Your task to perform on an android device: install app "AliExpress" Image 0: 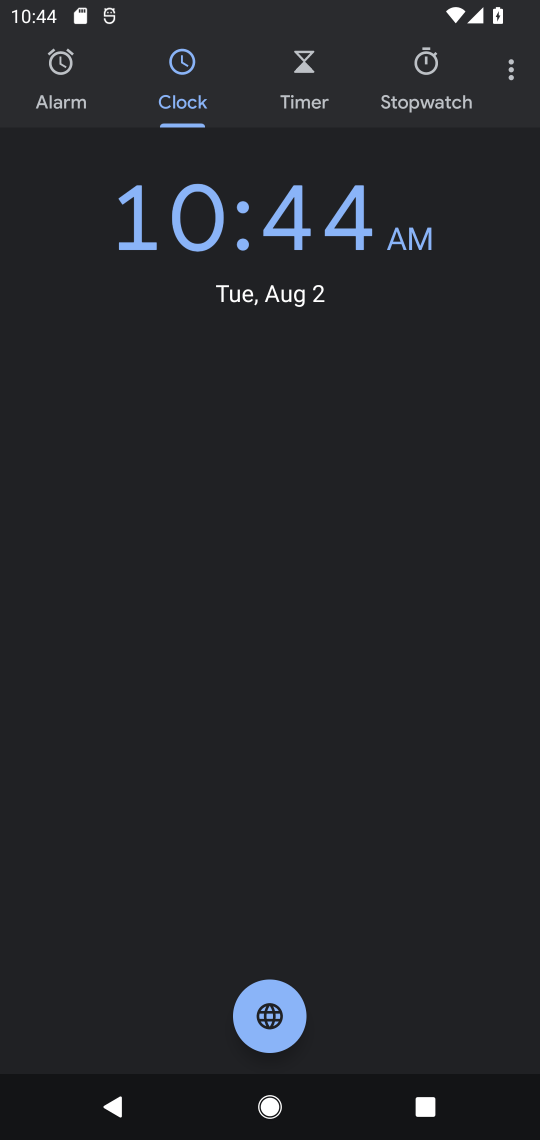
Step 0: press home button
Your task to perform on an android device: install app "AliExpress" Image 1: 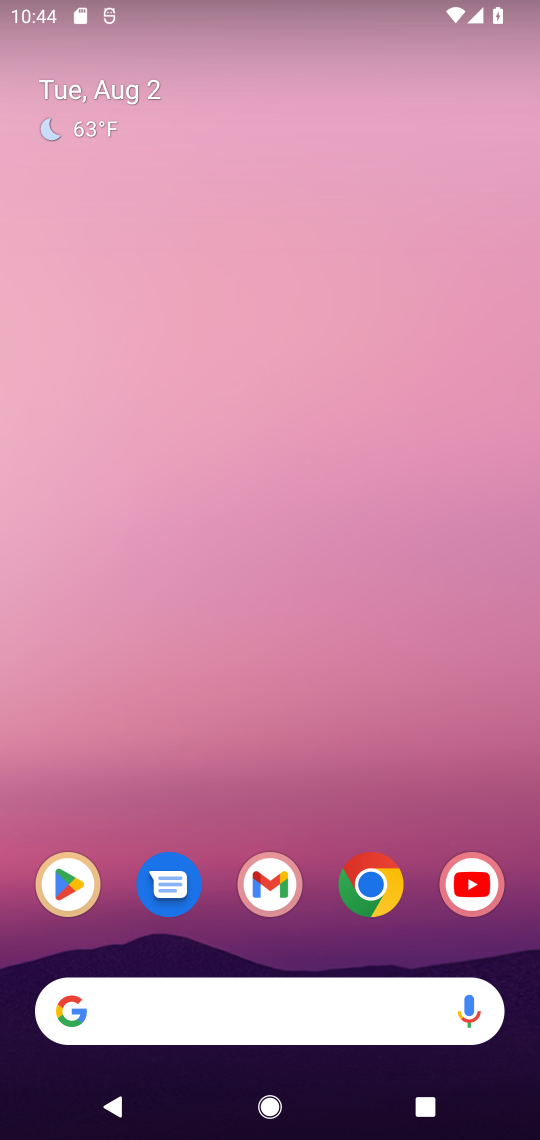
Step 1: click (56, 896)
Your task to perform on an android device: install app "AliExpress" Image 2: 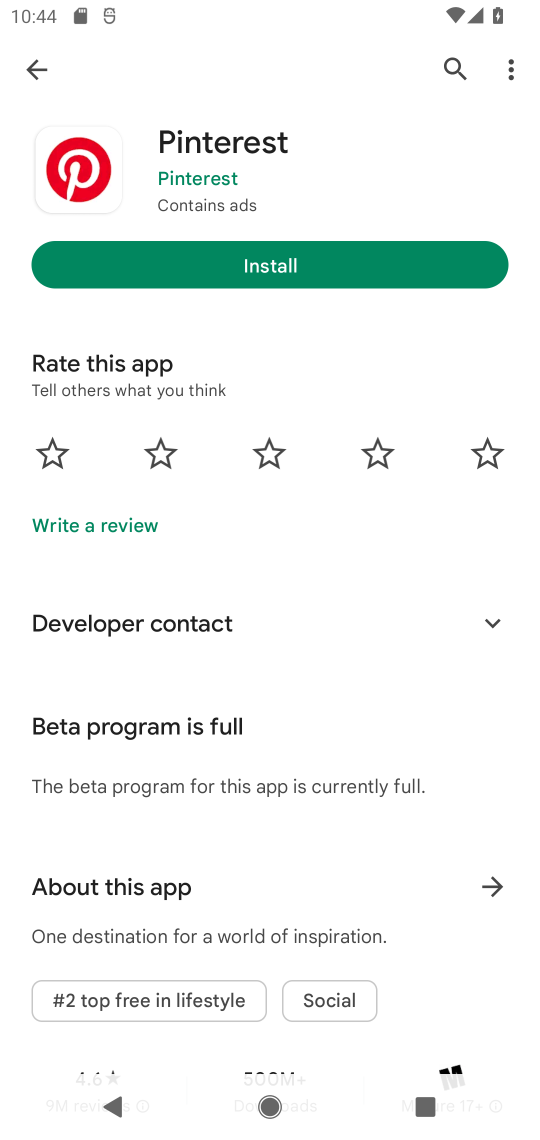
Step 2: click (13, 56)
Your task to perform on an android device: install app "AliExpress" Image 3: 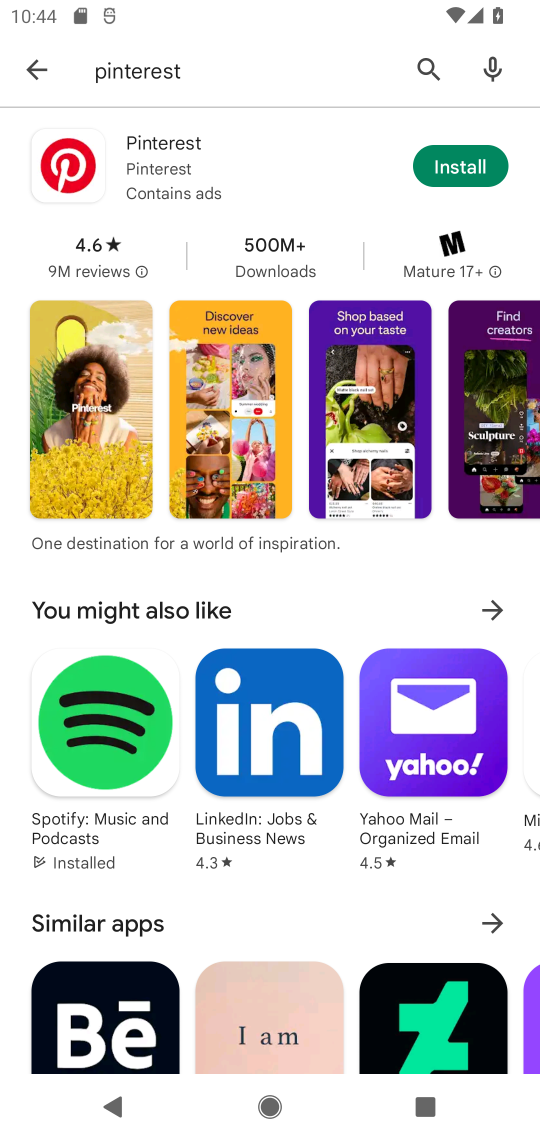
Step 3: click (220, 70)
Your task to perform on an android device: install app "AliExpress" Image 4: 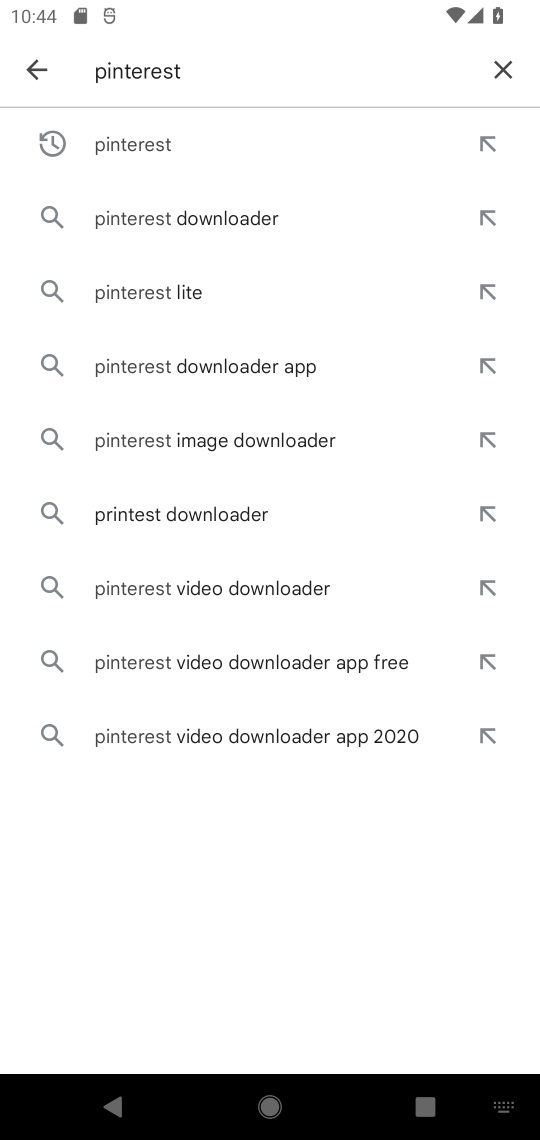
Step 4: click (498, 65)
Your task to perform on an android device: install app "AliExpress" Image 5: 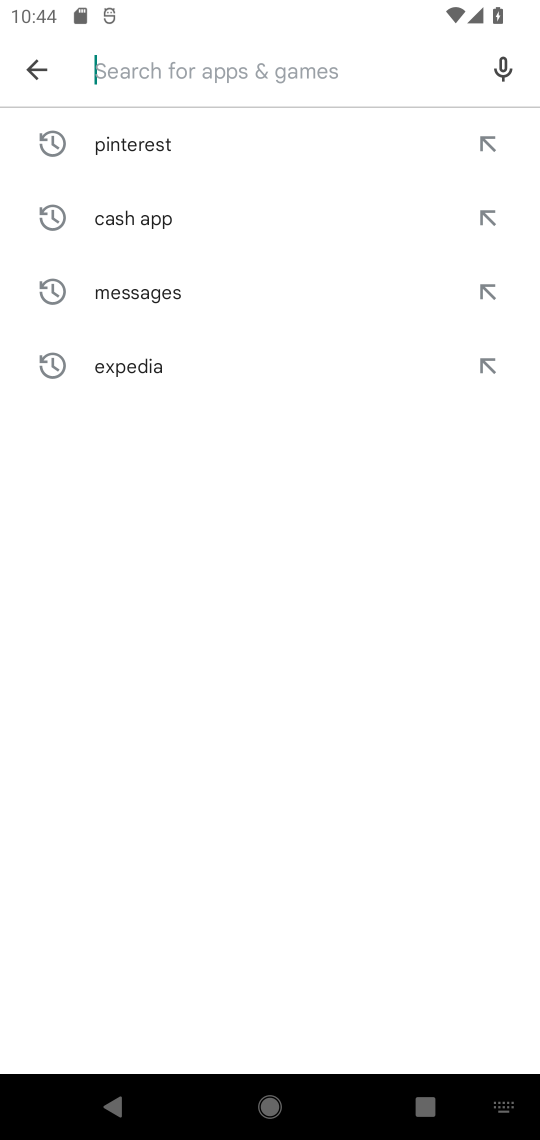
Step 5: type "AliExpress"
Your task to perform on an android device: install app "AliExpress" Image 6: 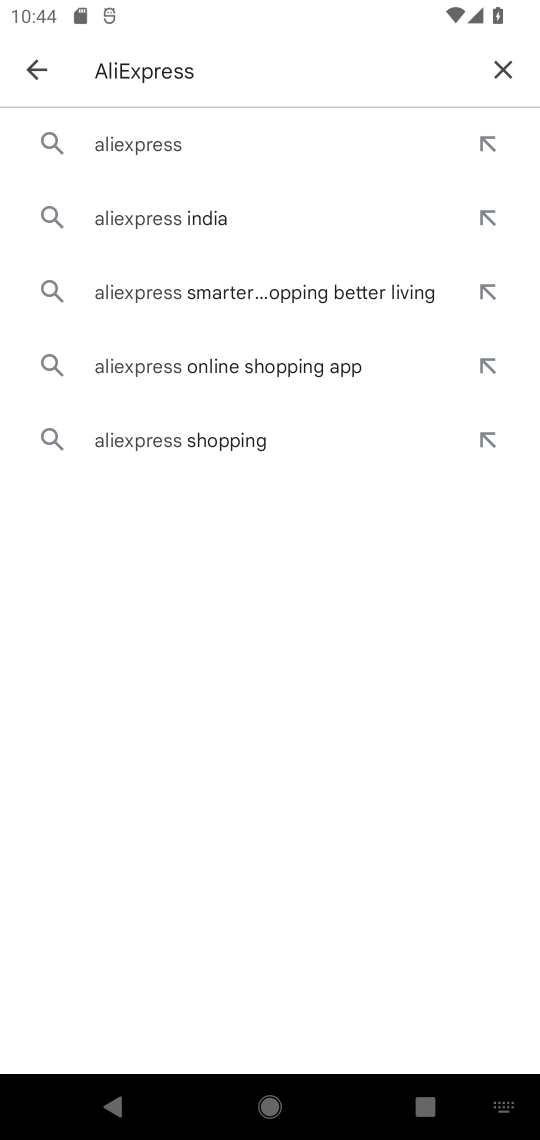
Step 6: click (143, 143)
Your task to perform on an android device: install app "AliExpress" Image 7: 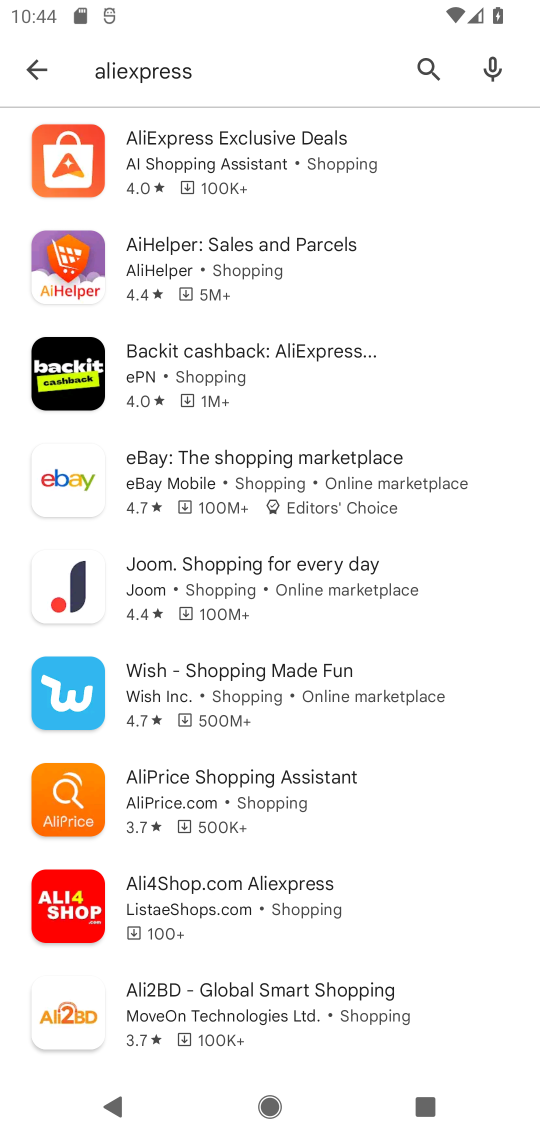
Step 7: click (237, 178)
Your task to perform on an android device: install app "AliExpress" Image 8: 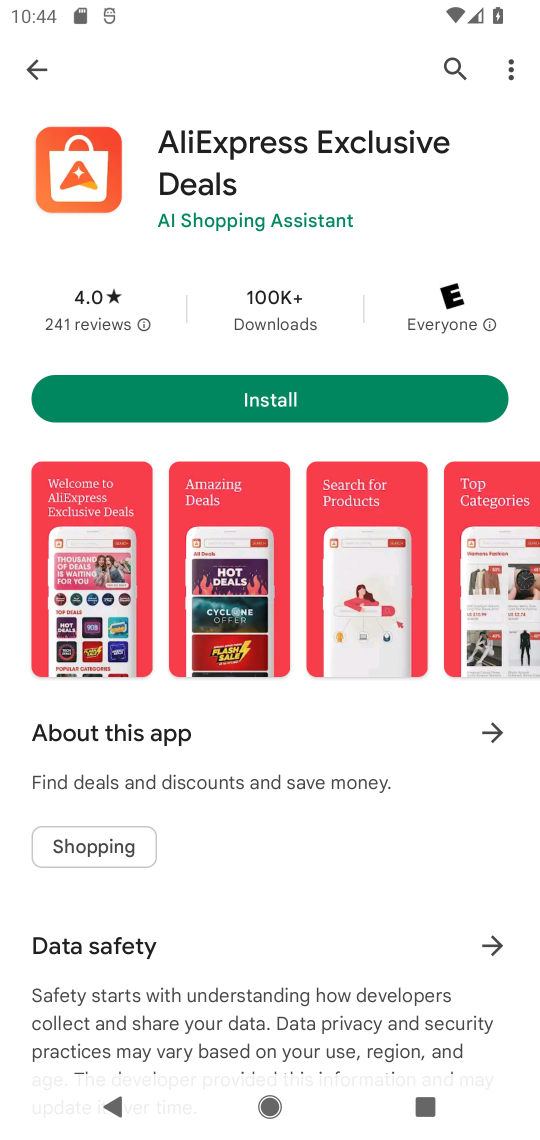
Step 8: click (269, 393)
Your task to perform on an android device: install app "AliExpress" Image 9: 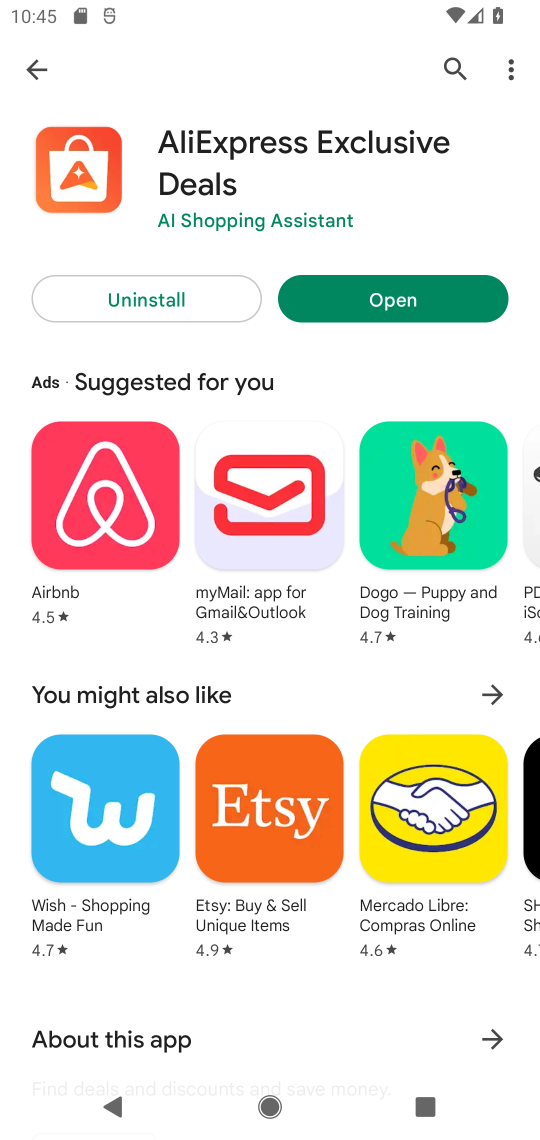
Step 9: task complete